Your task to perform on an android device: all mails in gmail Image 0: 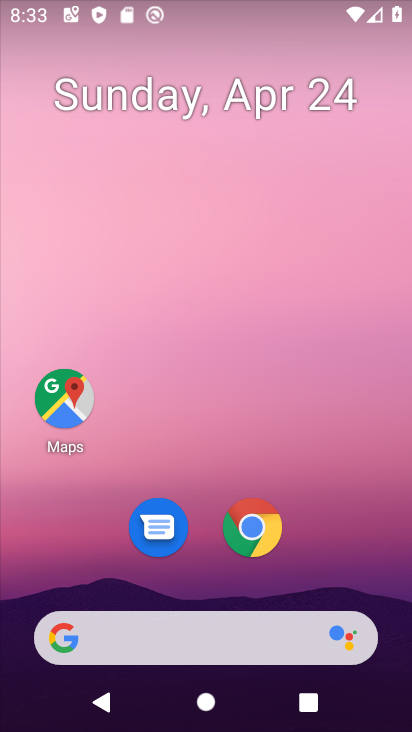
Step 0: drag from (316, 535) to (287, 46)
Your task to perform on an android device: all mails in gmail Image 1: 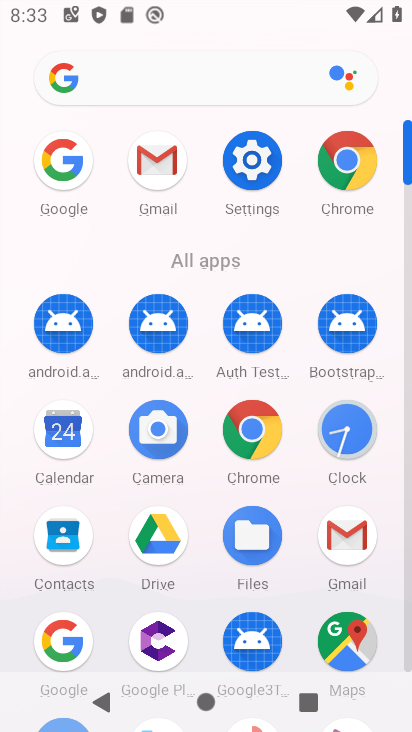
Step 1: click (354, 523)
Your task to perform on an android device: all mails in gmail Image 2: 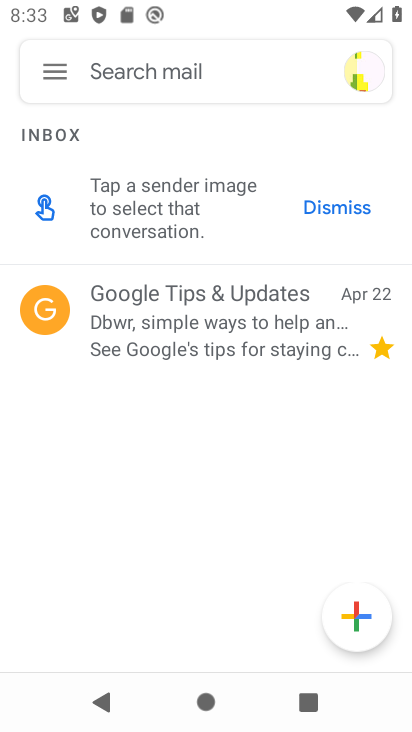
Step 2: click (48, 65)
Your task to perform on an android device: all mails in gmail Image 3: 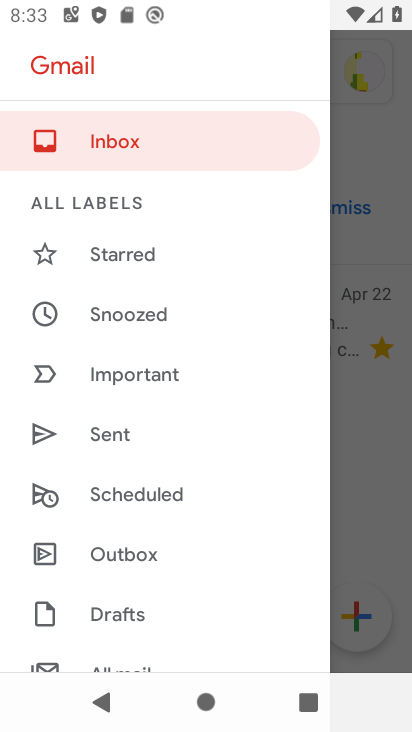
Step 3: drag from (154, 463) to (124, 214)
Your task to perform on an android device: all mails in gmail Image 4: 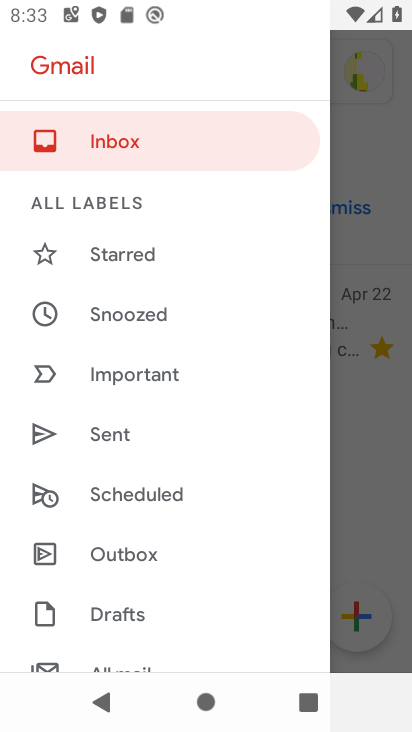
Step 4: drag from (168, 565) to (185, 182)
Your task to perform on an android device: all mails in gmail Image 5: 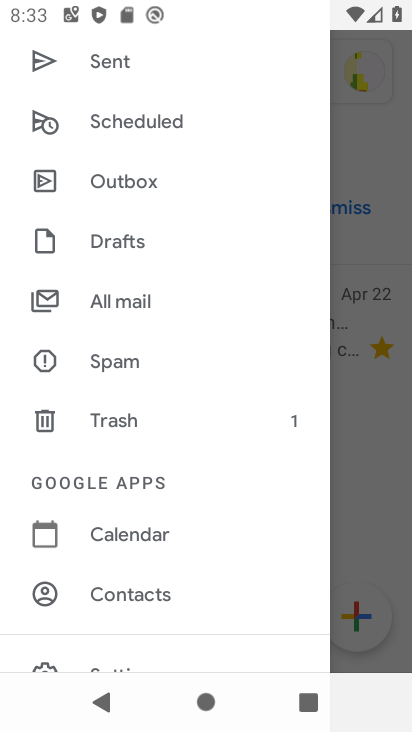
Step 5: click (125, 304)
Your task to perform on an android device: all mails in gmail Image 6: 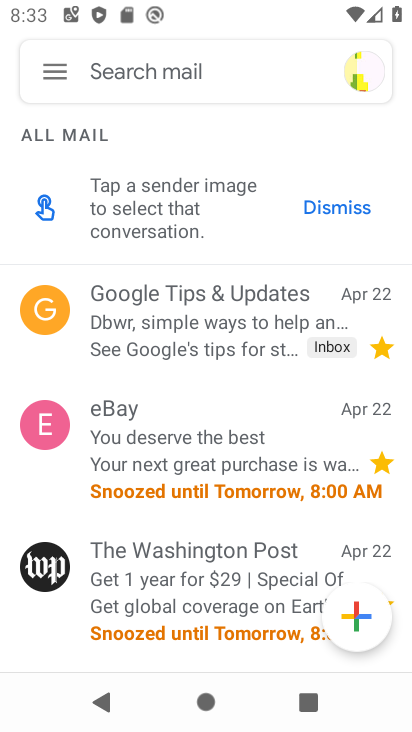
Step 6: task complete